Your task to perform on an android device: turn on translation in the chrome app Image 0: 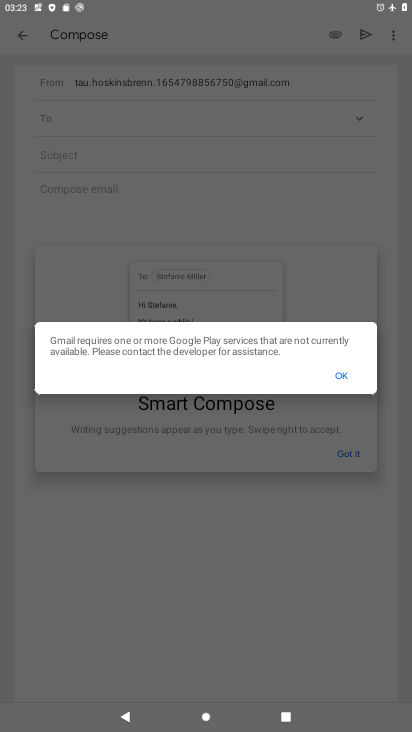
Step 0: press home button
Your task to perform on an android device: turn on translation in the chrome app Image 1: 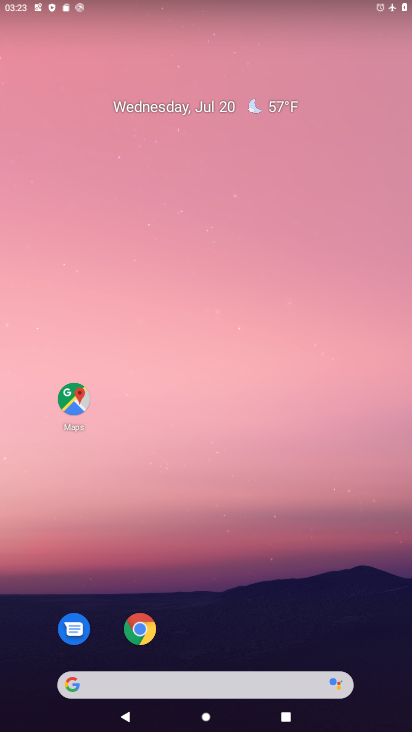
Step 1: click (140, 630)
Your task to perform on an android device: turn on translation in the chrome app Image 2: 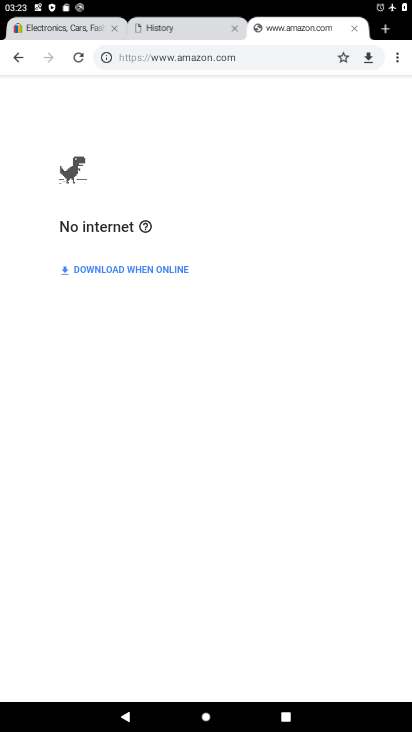
Step 2: click (397, 60)
Your task to perform on an android device: turn on translation in the chrome app Image 3: 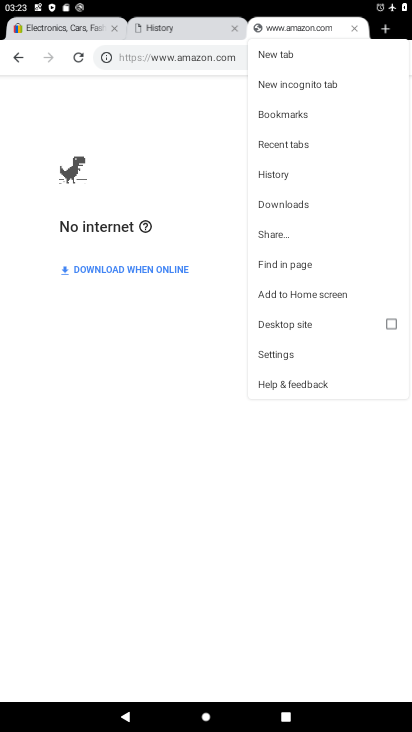
Step 3: click (284, 352)
Your task to perform on an android device: turn on translation in the chrome app Image 4: 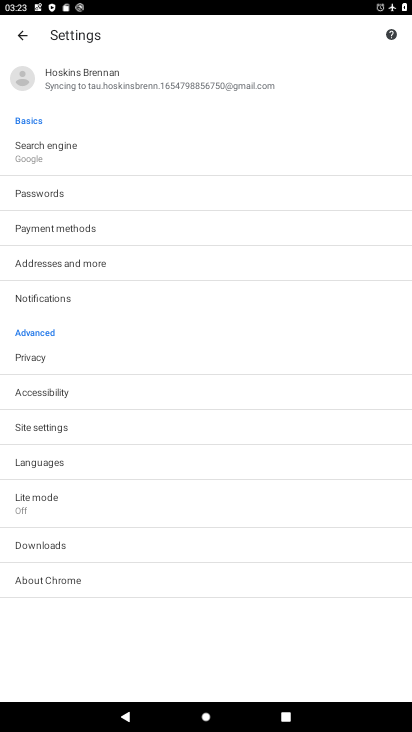
Step 4: click (53, 461)
Your task to perform on an android device: turn on translation in the chrome app Image 5: 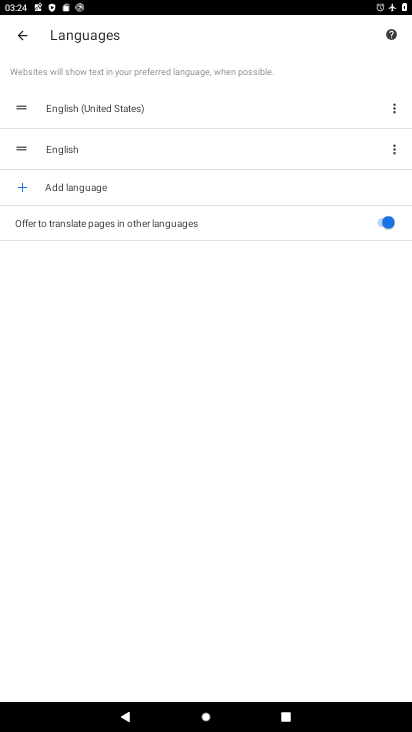
Step 5: task complete